Your task to perform on an android device: turn on the 24-hour format for clock Image 0: 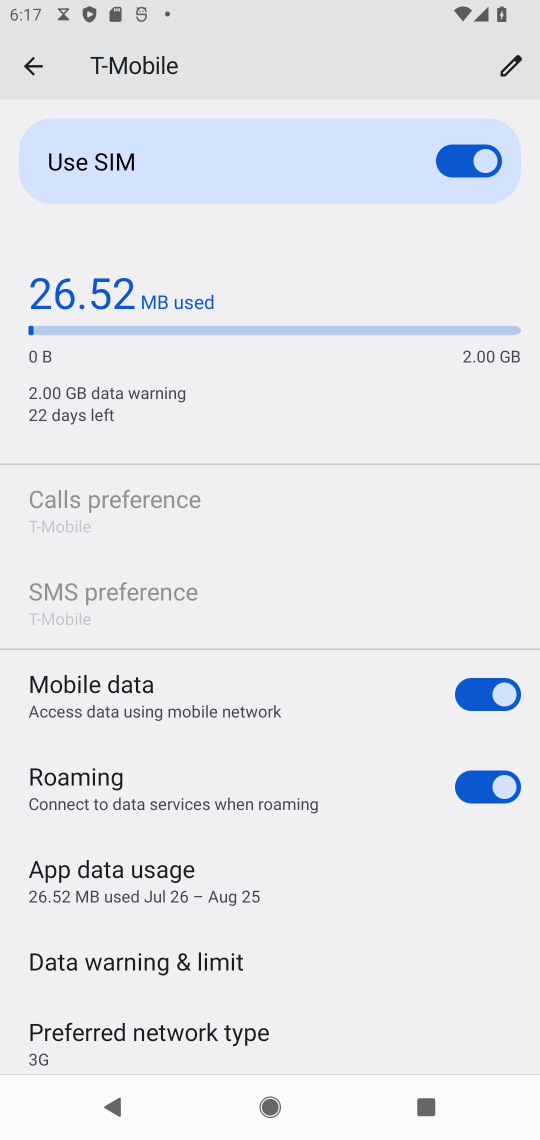
Step 0: press home button
Your task to perform on an android device: turn on the 24-hour format for clock Image 1: 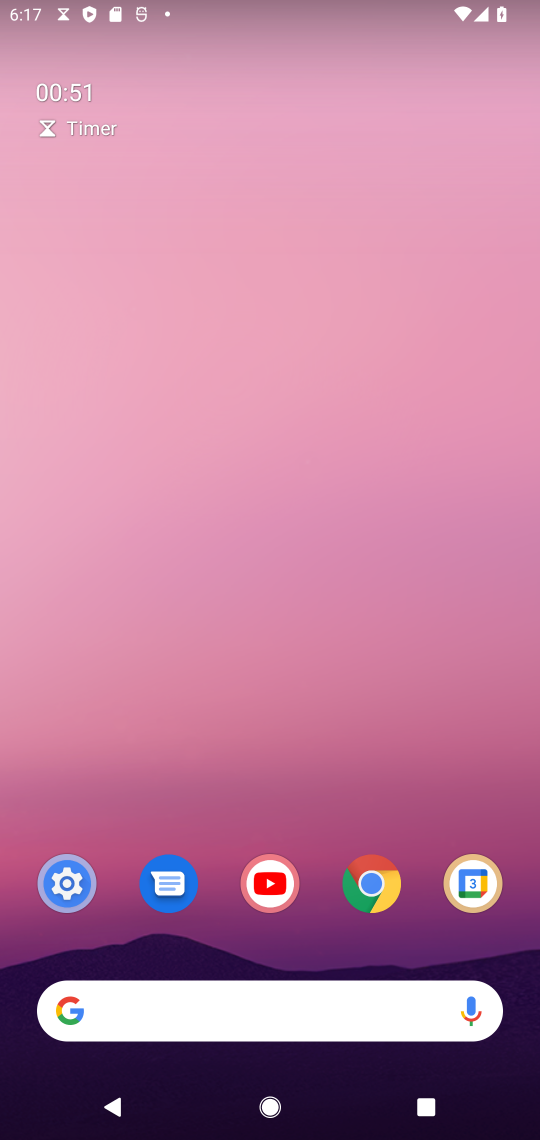
Step 1: drag from (239, 976) to (228, 394)
Your task to perform on an android device: turn on the 24-hour format for clock Image 2: 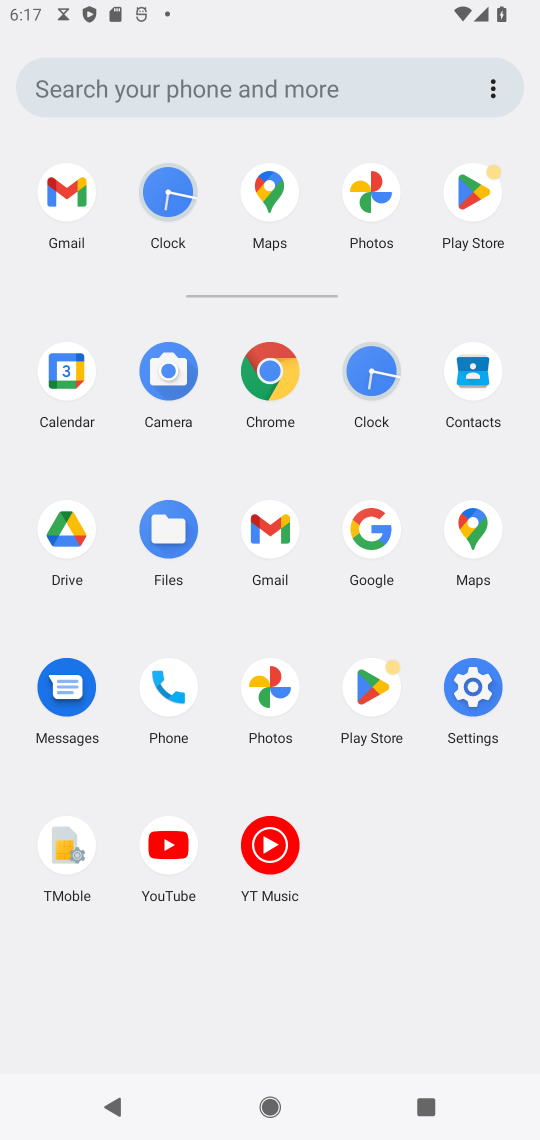
Step 2: click (172, 210)
Your task to perform on an android device: turn on the 24-hour format for clock Image 3: 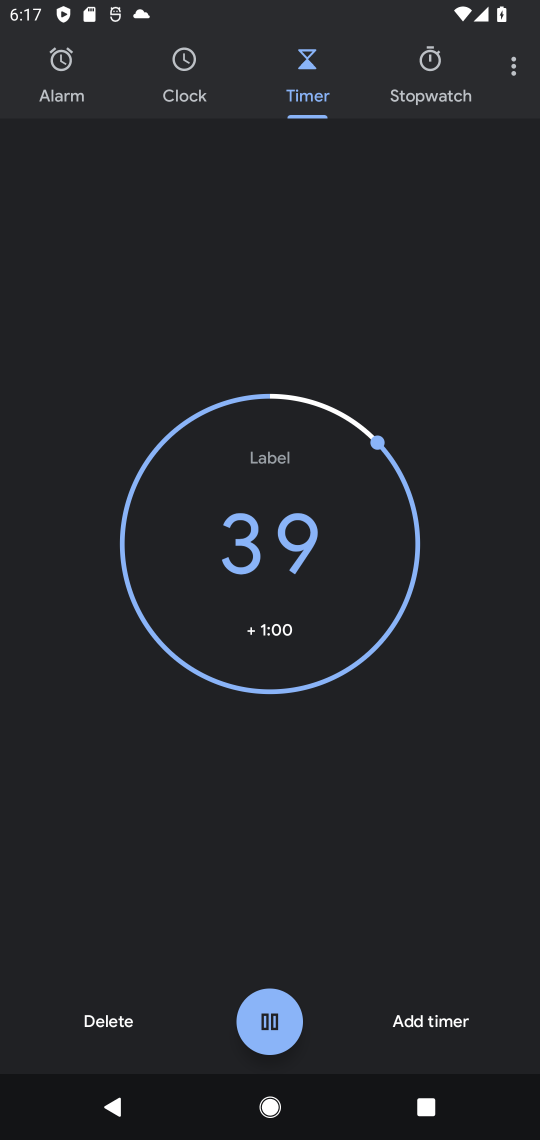
Step 3: click (517, 65)
Your task to perform on an android device: turn on the 24-hour format for clock Image 4: 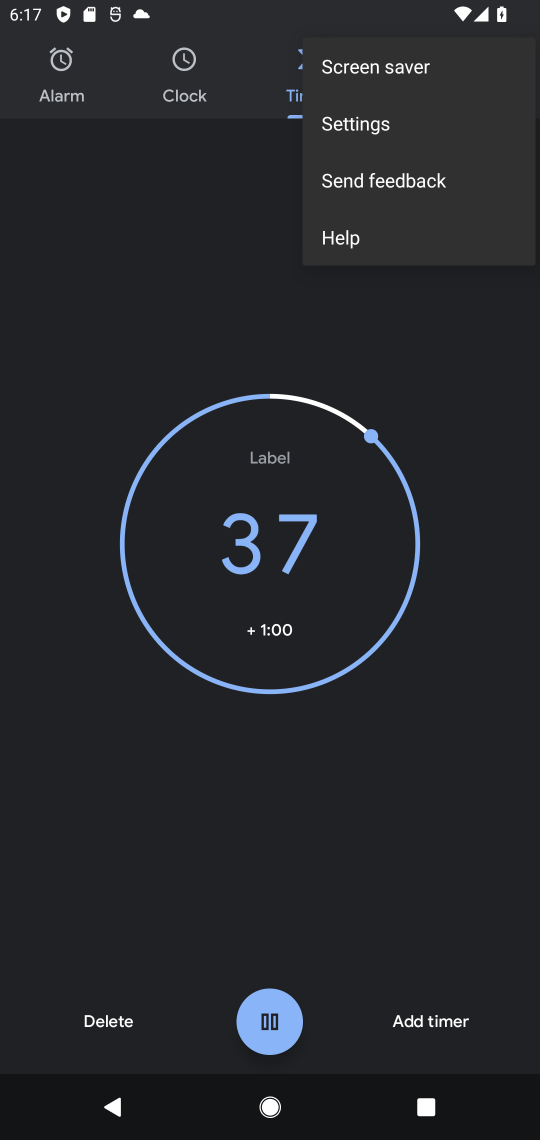
Step 4: click (354, 135)
Your task to perform on an android device: turn on the 24-hour format for clock Image 5: 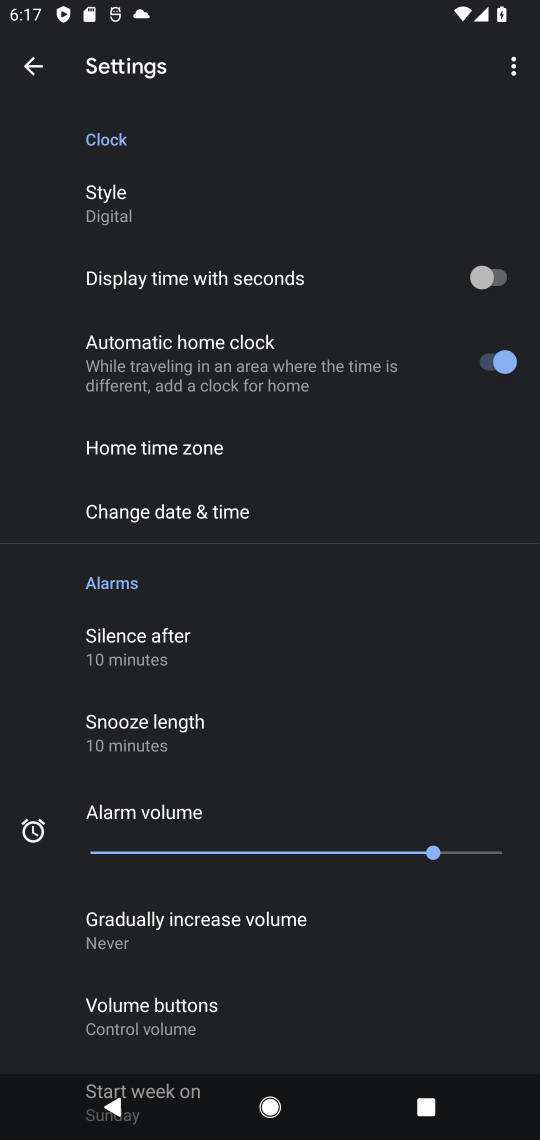
Step 5: click (165, 522)
Your task to perform on an android device: turn on the 24-hour format for clock Image 6: 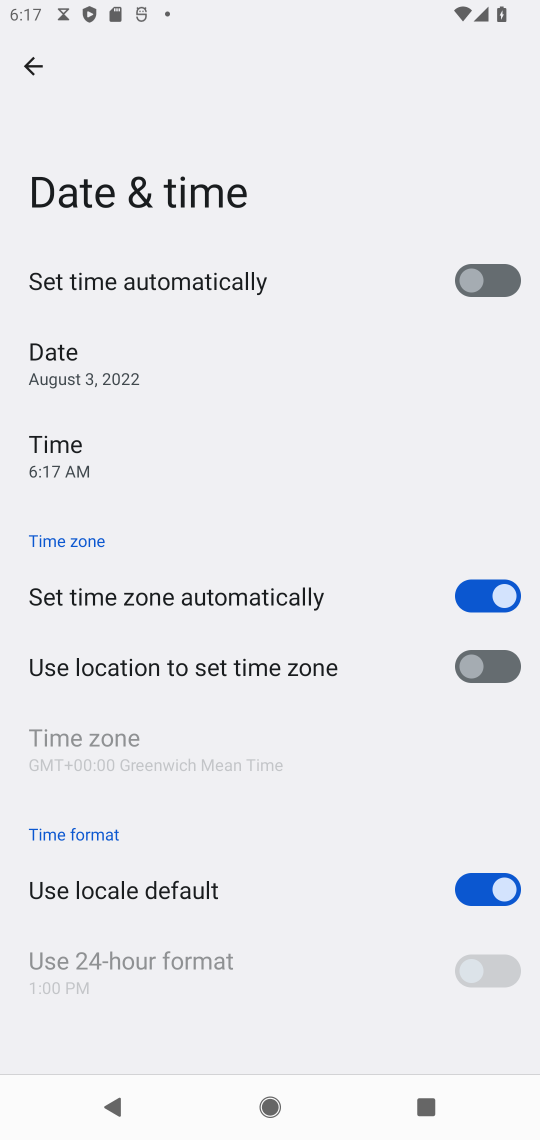
Step 6: click (491, 886)
Your task to perform on an android device: turn on the 24-hour format for clock Image 7: 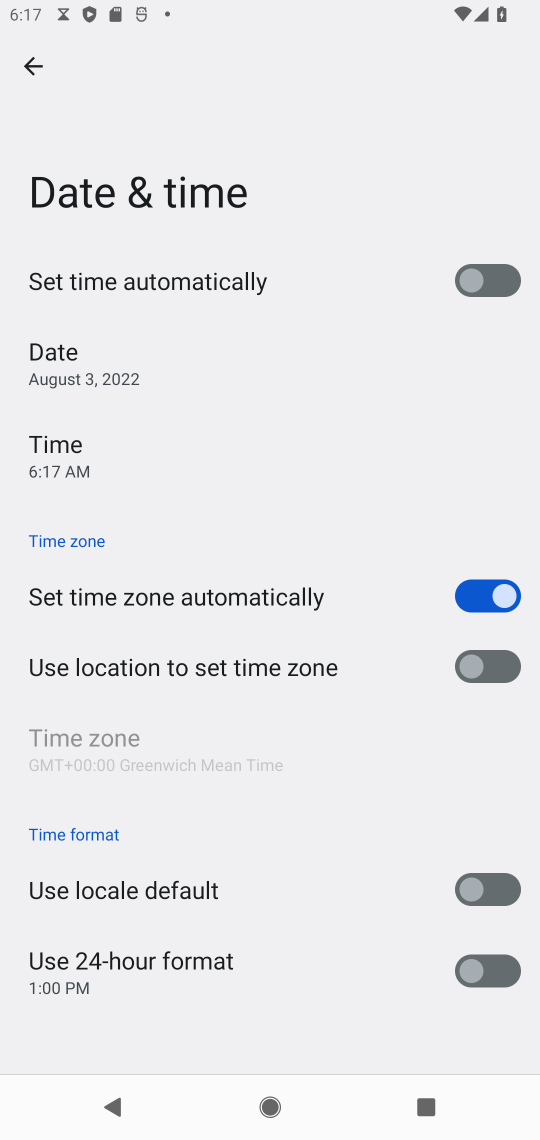
Step 7: click (502, 972)
Your task to perform on an android device: turn on the 24-hour format for clock Image 8: 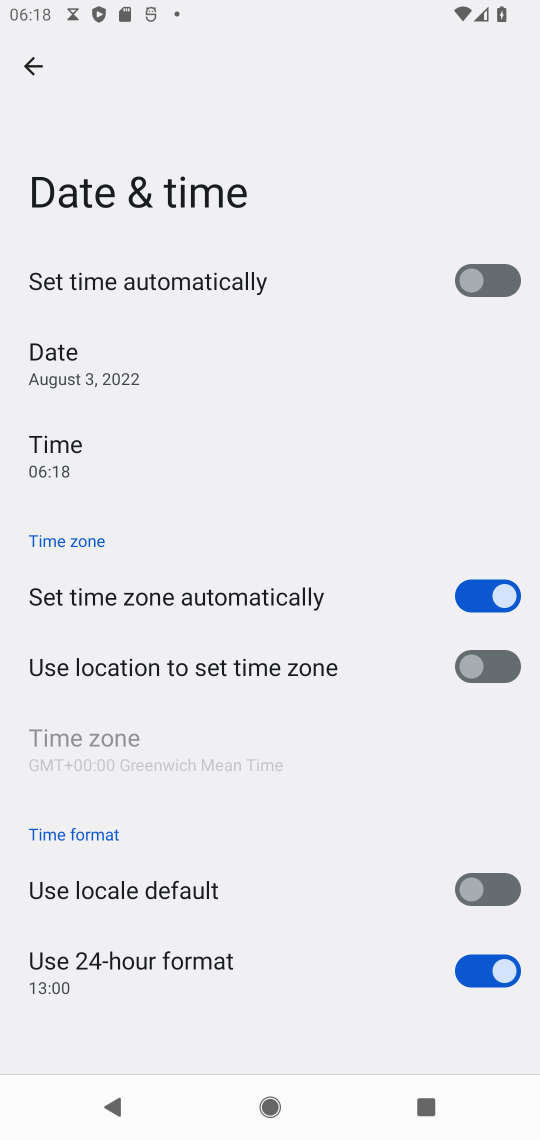
Step 8: task complete